Your task to perform on an android device: Go to location settings Image 0: 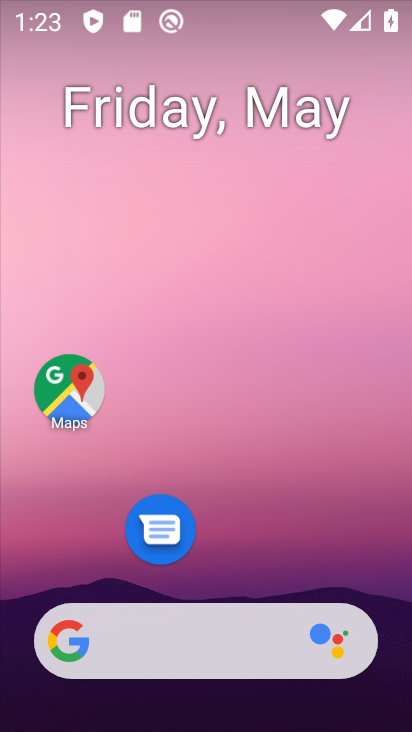
Step 0: click (262, 121)
Your task to perform on an android device: Go to location settings Image 1: 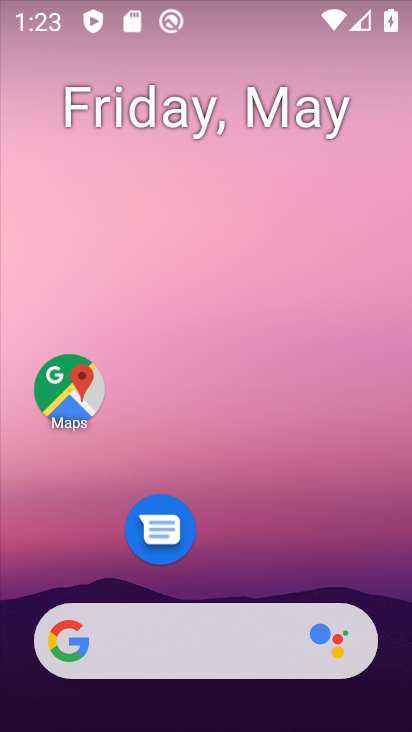
Step 1: drag from (218, 542) to (233, 155)
Your task to perform on an android device: Go to location settings Image 2: 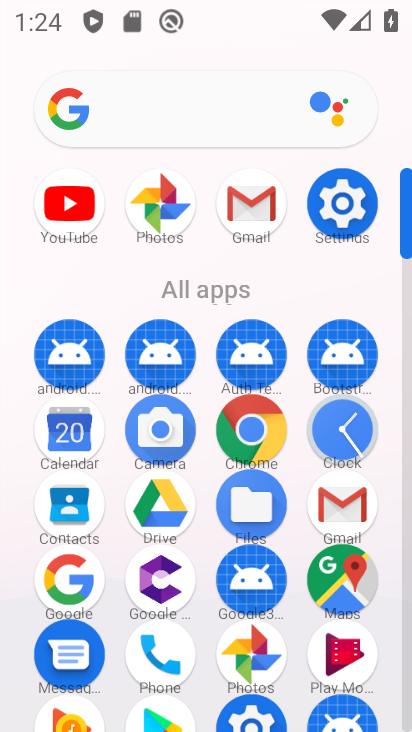
Step 2: click (341, 190)
Your task to perform on an android device: Go to location settings Image 3: 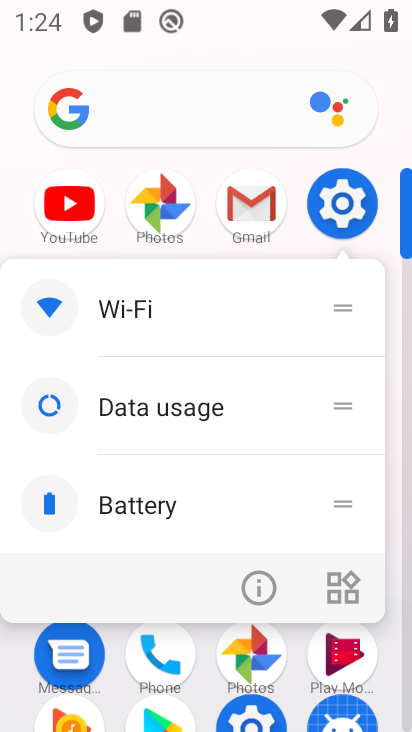
Step 3: click (261, 582)
Your task to perform on an android device: Go to location settings Image 4: 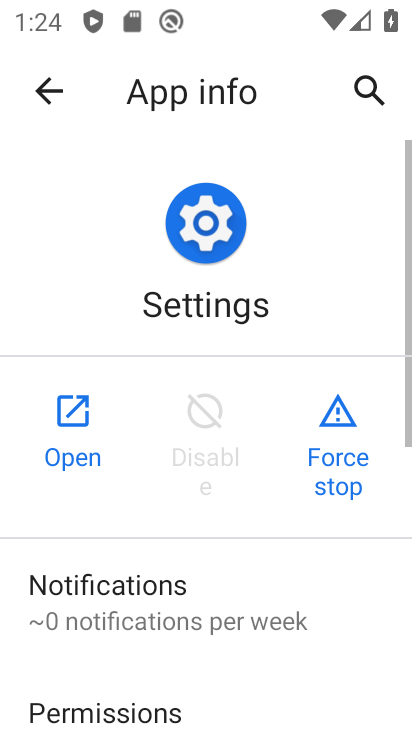
Step 4: click (62, 419)
Your task to perform on an android device: Go to location settings Image 5: 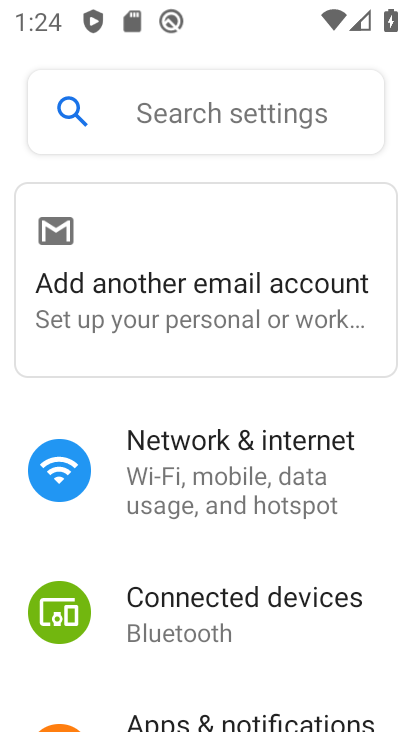
Step 5: drag from (256, 587) to (291, 147)
Your task to perform on an android device: Go to location settings Image 6: 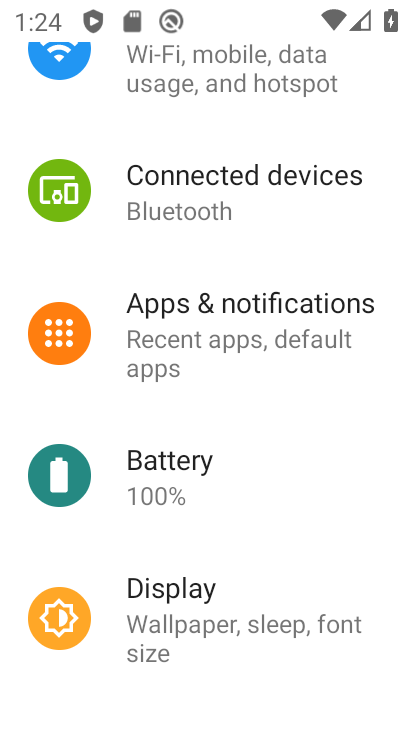
Step 6: drag from (197, 614) to (232, 129)
Your task to perform on an android device: Go to location settings Image 7: 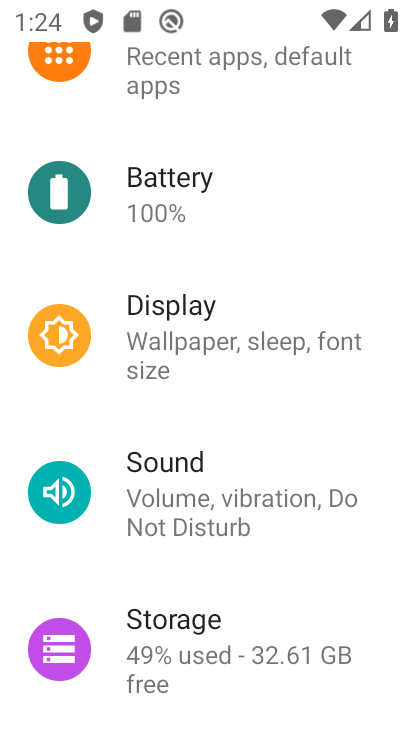
Step 7: drag from (236, 552) to (259, 228)
Your task to perform on an android device: Go to location settings Image 8: 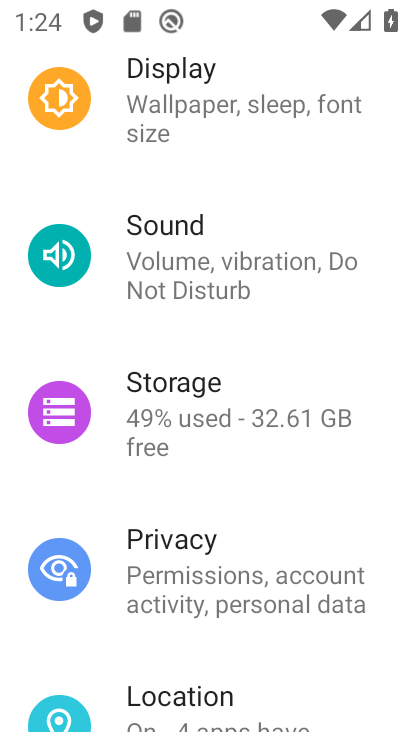
Step 8: drag from (231, 532) to (290, 175)
Your task to perform on an android device: Go to location settings Image 9: 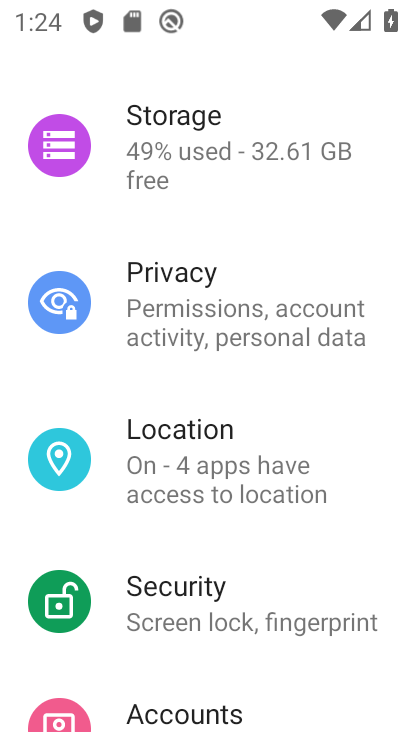
Step 9: click (223, 425)
Your task to perform on an android device: Go to location settings Image 10: 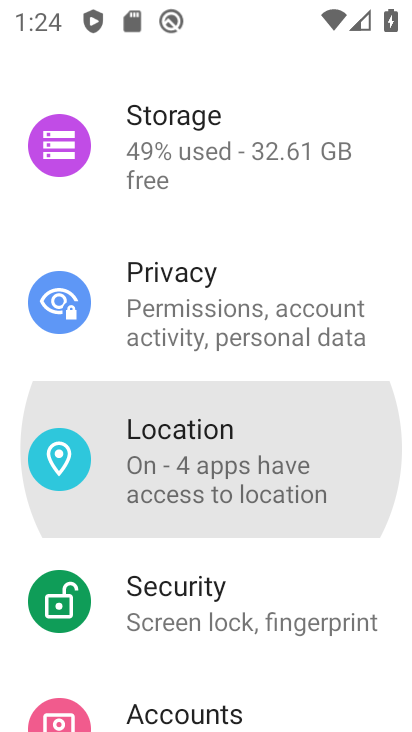
Step 10: click (218, 413)
Your task to perform on an android device: Go to location settings Image 11: 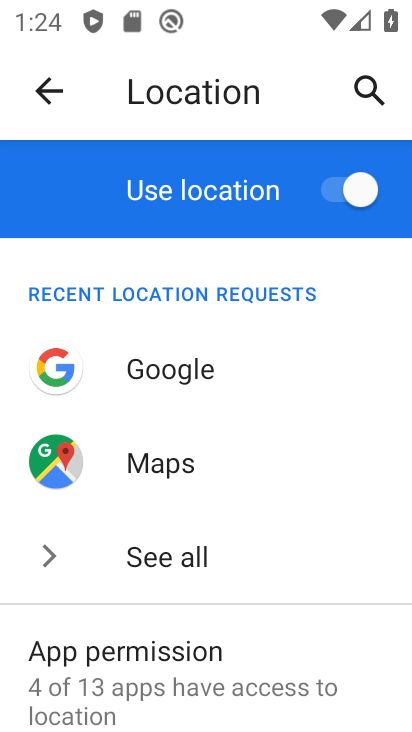
Step 11: drag from (211, 635) to (283, 203)
Your task to perform on an android device: Go to location settings Image 12: 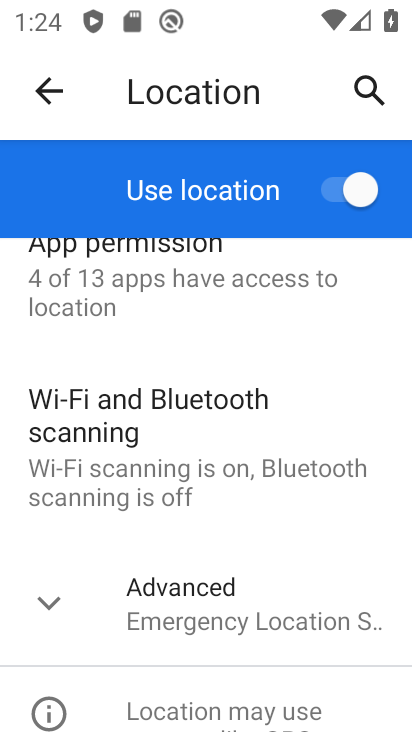
Step 12: drag from (208, 609) to (276, 266)
Your task to perform on an android device: Go to location settings Image 13: 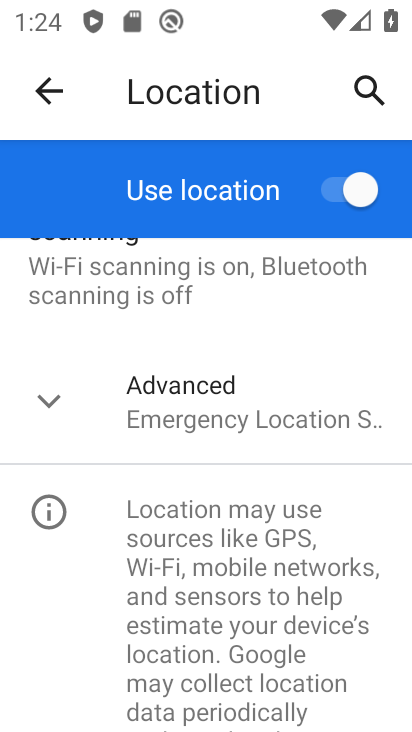
Step 13: click (159, 406)
Your task to perform on an android device: Go to location settings Image 14: 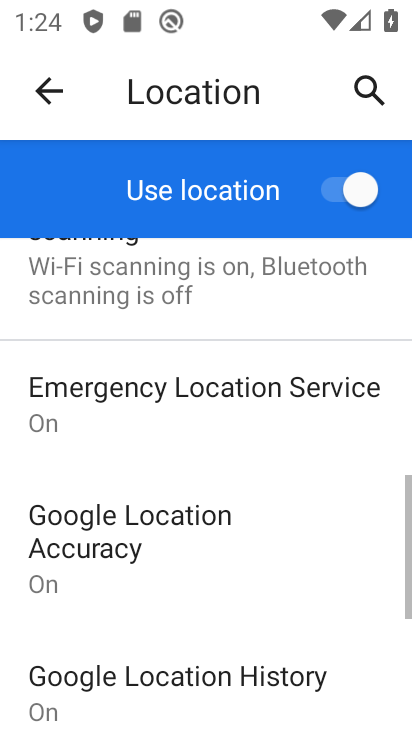
Step 14: task complete